Your task to perform on an android device: Do I have any events tomorrow? Image 0: 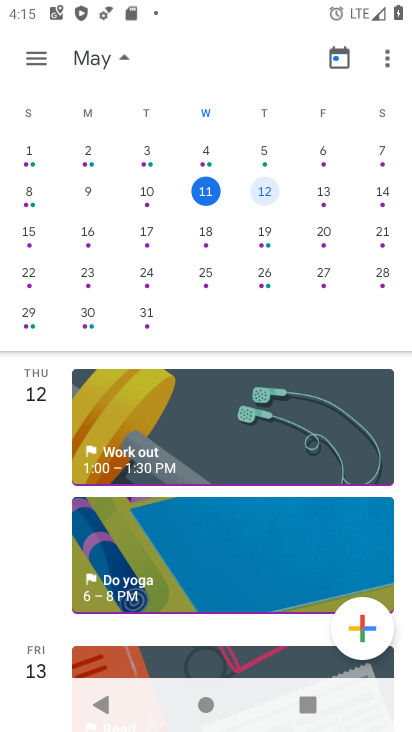
Step 0: press home button
Your task to perform on an android device: Do I have any events tomorrow? Image 1: 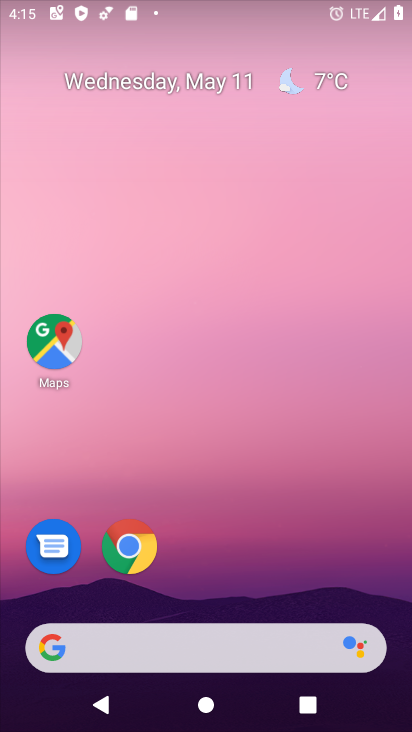
Step 1: drag from (223, 635) to (224, 39)
Your task to perform on an android device: Do I have any events tomorrow? Image 2: 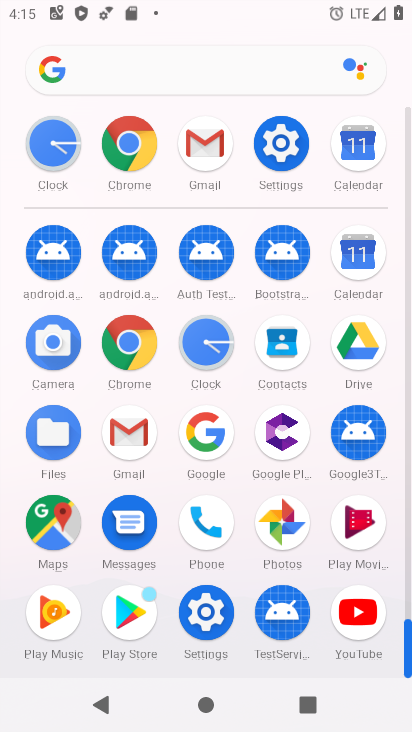
Step 2: click (358, 261)
Your task to perform on an android device: Do I have any events tomorrow? Image 3: 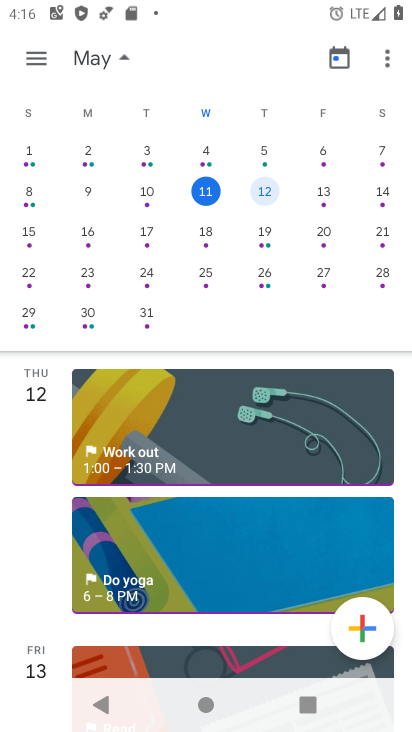
Step 3: click (268, 194)
Your task to perform on an android device: Do I have any events tomorrow? Image 4: 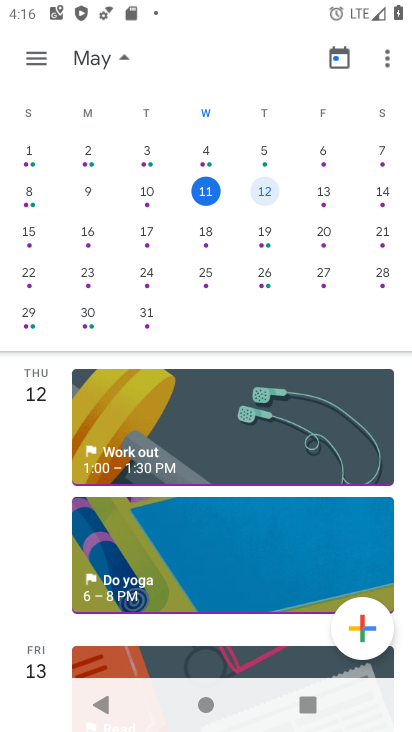
Step 4: task complete